Your task to perform on an android device: turn on sleep mode Image 0: 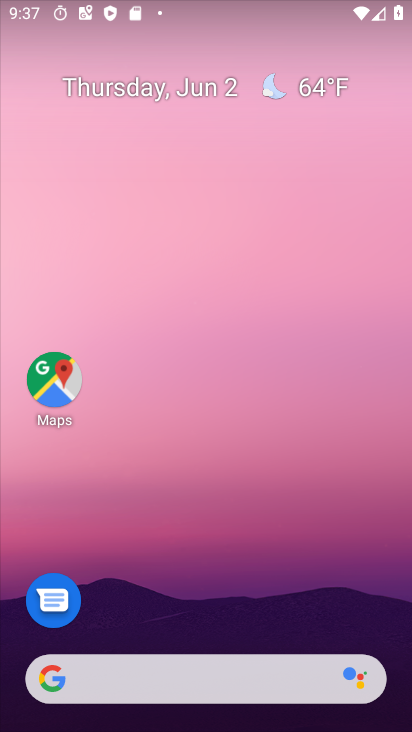
Step 0: drag from (228, 598) to (207, 104)
Your task to perform on an android device: turn on sleep mode Image 1: 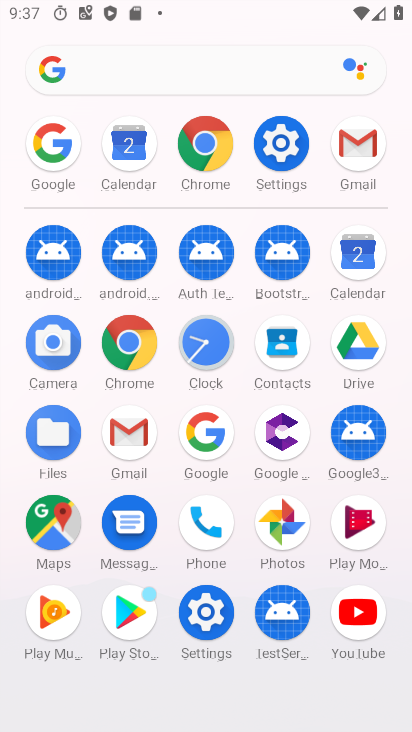
Step 1: click (275, 142)
Your task to perform on an android device: turn on sleep mode Image 2: 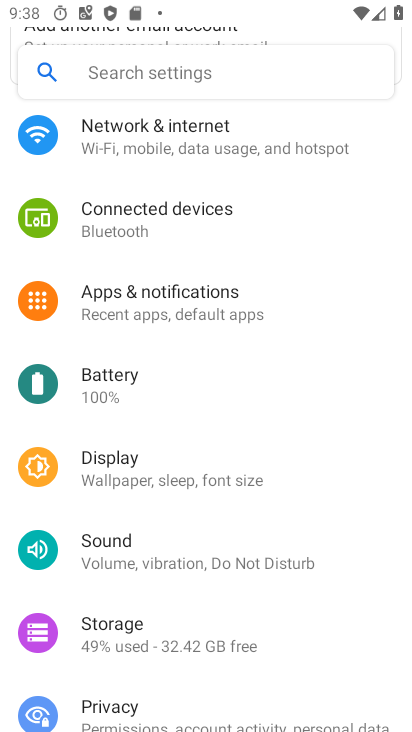
Step 2: click (143, 465)
Your task to perform on an android device: turn on sleep mode Image 3: 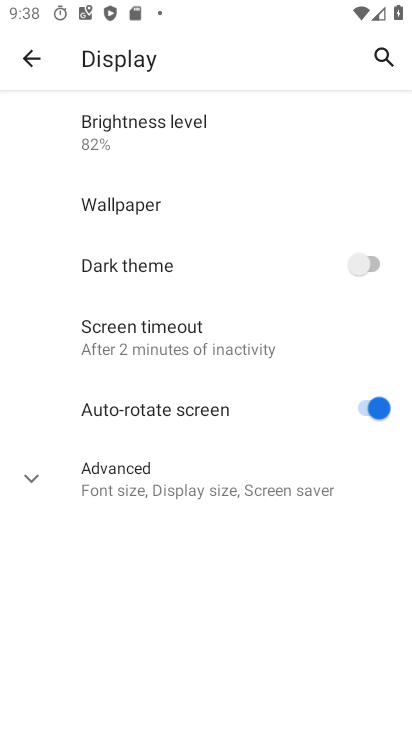
Step 3: click (161, 341)
Your task to perform on an android device: turn on sleep mode Image 4: 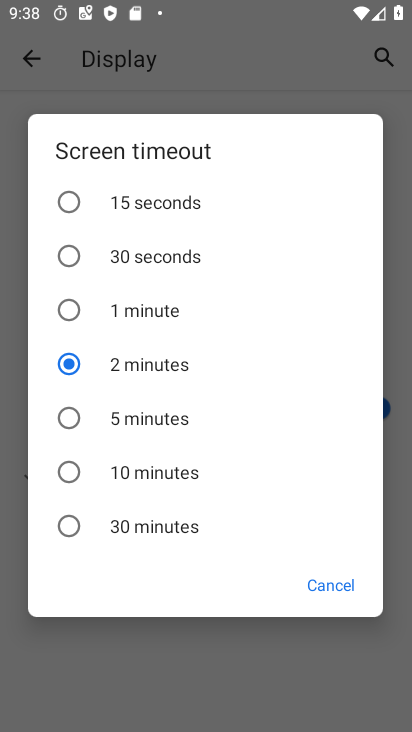
Step 4: task complete